Your task to perform on an android device: delete browsing data in the chrome app Image 0: 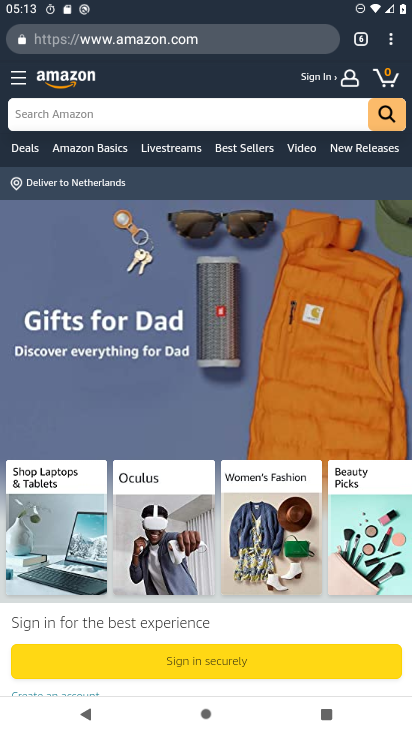
Step 0: press home button
Your task to perform on an android device: delete browsing data in the chrome app Image 1: 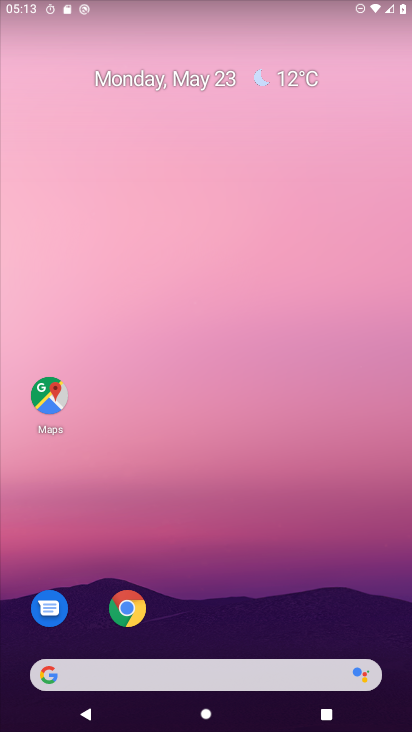
Step 1: click (139, 621)
Your task to perform on an android device: delete browsing data in the chrome app Image 2: 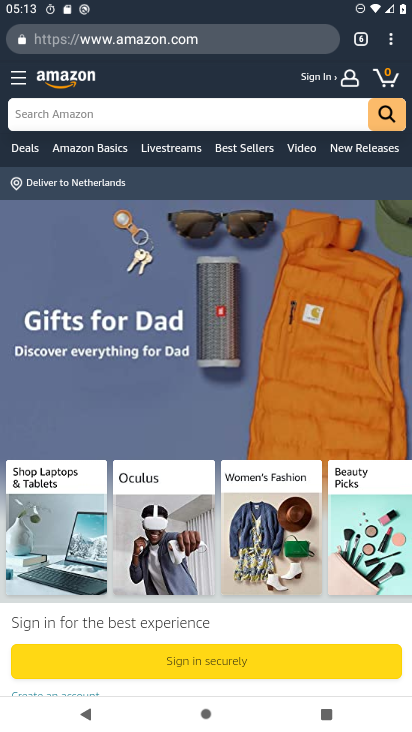
Step 2: click (396, 36)
Your task to perform on an android device: delete browsing data in the chrome app Image 3: 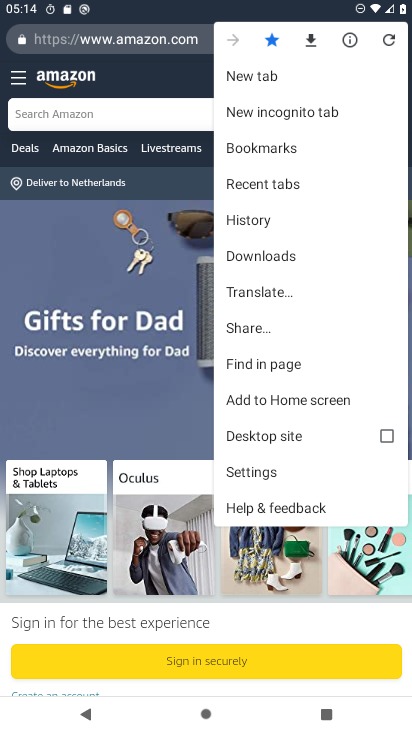
Step 3: click (249, 216)
Your task to perform on an android device: delete browsing data in the chrome app Image 4: 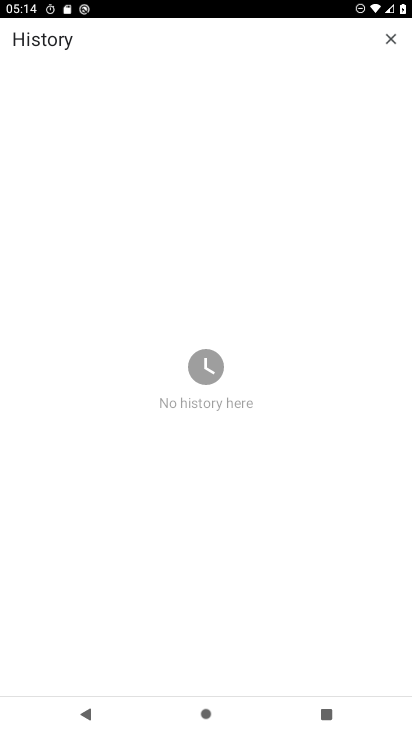
Step 4: press home button
Your task to perform on an android device: delete browsing data in the chrome app Image 5: 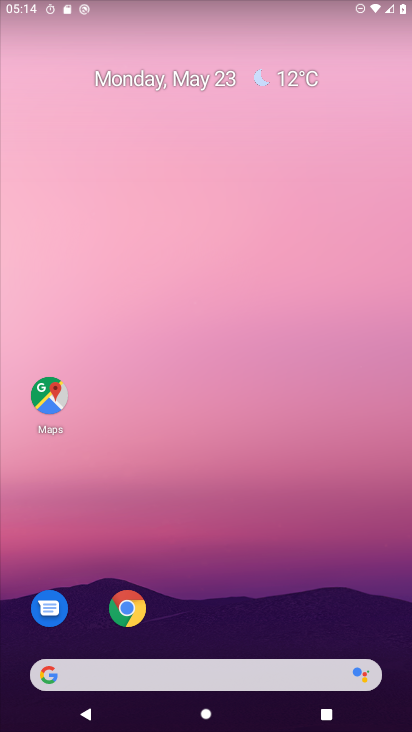
Step 5: click (133, 605)
Your task to perform on an android device: delete browsing data in the chrome app Image 6: 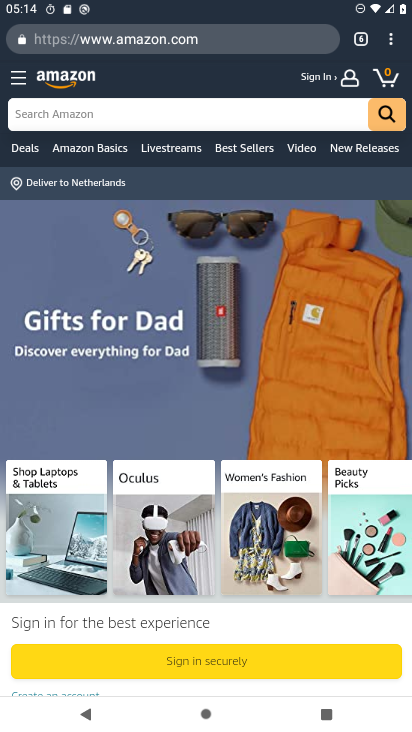
Step 6: task complete